Your task to perform on an android device: Open Yahoo.com Image 0: 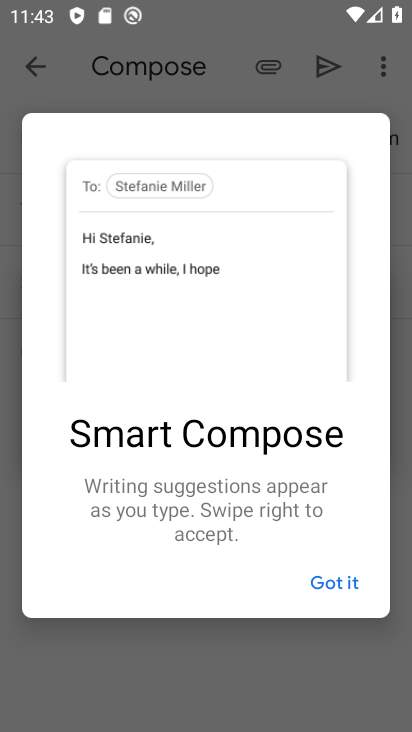
Step 0: press home button
Your task to perform on an android device: Open Yahoo.com Image 1: 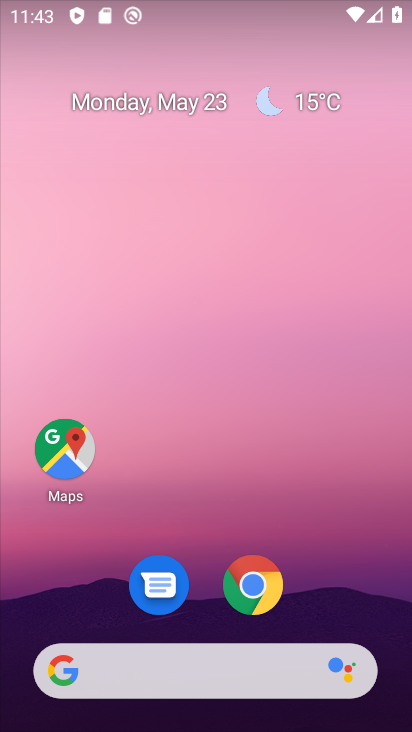
Step 1: click (167, 679)
Your task to perform on an android device: Open Yahoo.com Image 2: 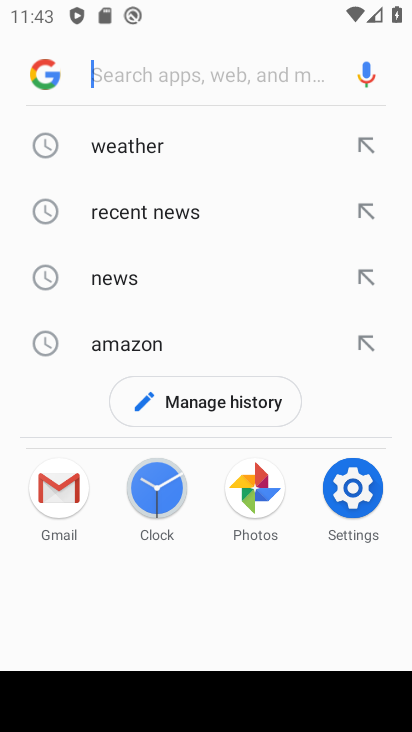
Step 2: type "yahoo.com"
Your task to perform on an android device: Open Yahoo.com Image 3: 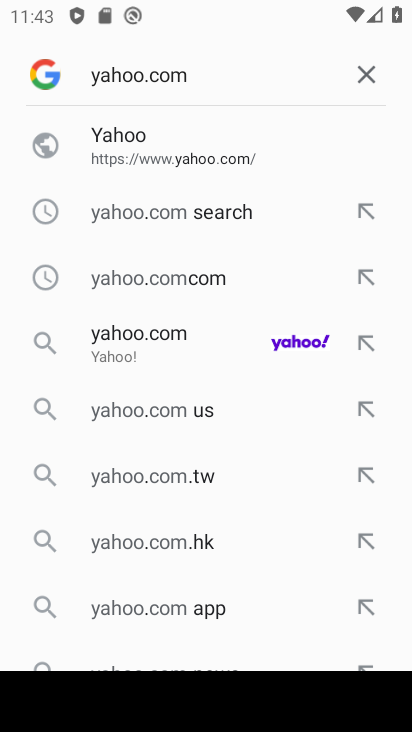
Step 3: click (146, 346)
Your task to perform on an android device: Open Yahoo.com Image 4: 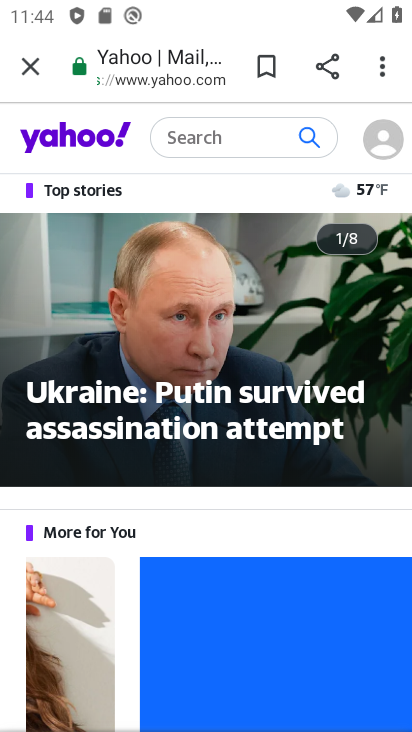
Step 4: task complete